Your task to perform on an android device: toggle priority inbox in the gmail app Image 0: 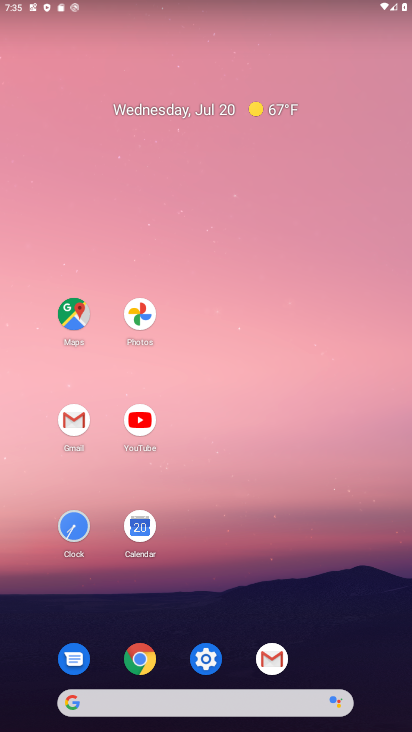
Step 0: click (270, 656)
Your task to perform on an android device: toggle priority inbox in the gmail app Image 1: 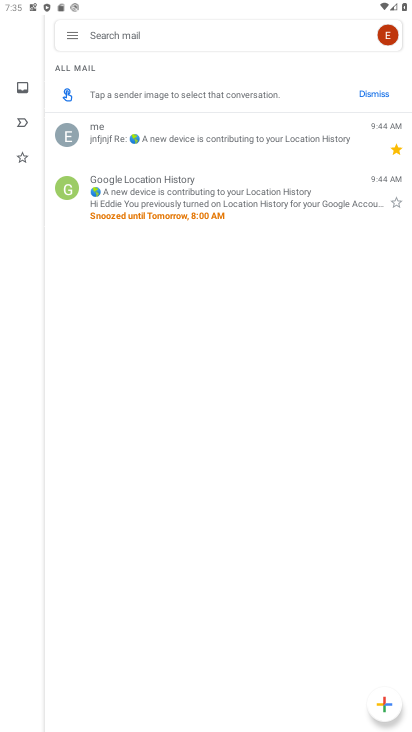
Step 1: click (63, 36)
Your task to perform on an android device: toggle priority inbox in the gmail app Image 2: 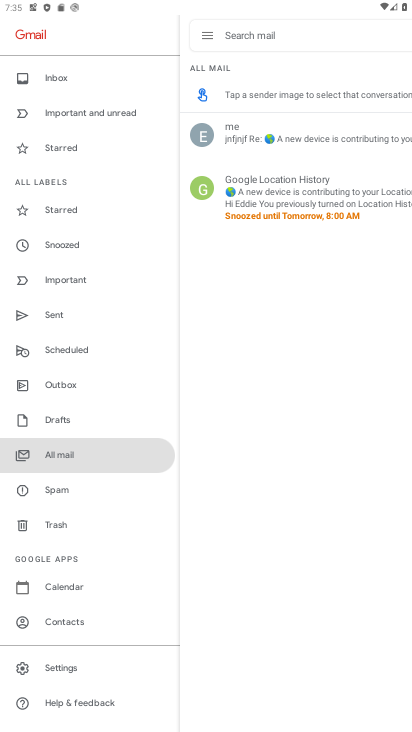
Step 2: click (57, 669)
Your task to perform on an android device: toggle priority inbox in the gmail app Image 3: 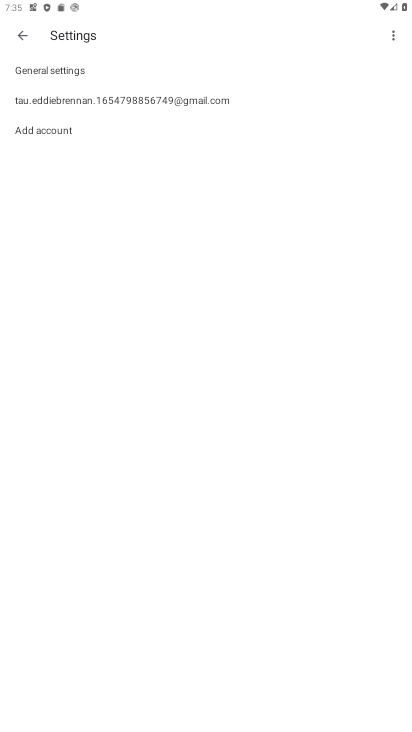
Step 3: click (63, 99)
Your task to perform on an android device: toggle priority inbox in the gmail app Image 4: 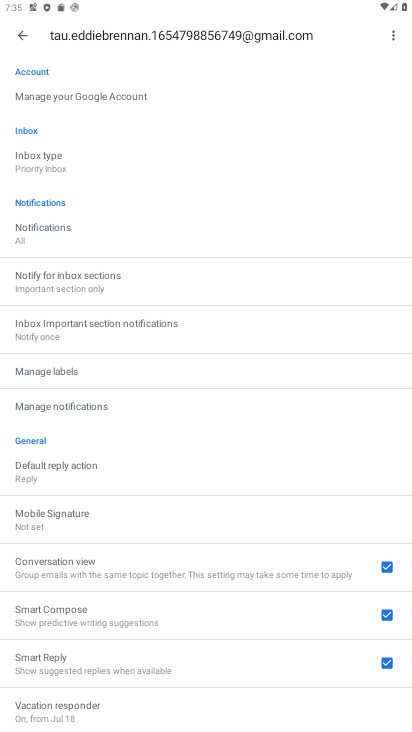
Step 4: click (34, 159)
Your task to perform on an android device: toggle priority inbox in the gmail app Image 5: 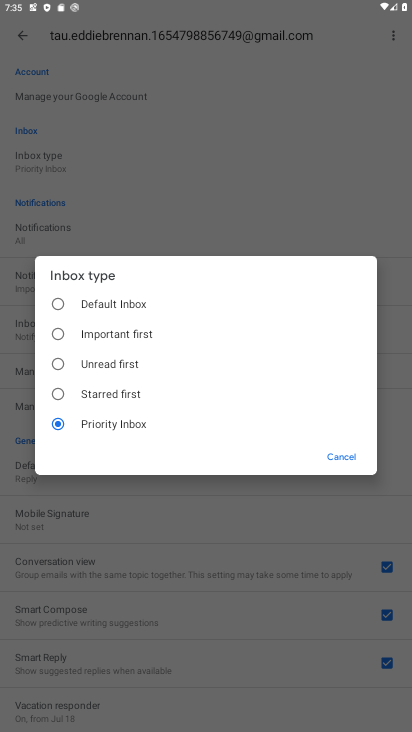
Step 5: click (56, 309)
Your task to perform on an android device: toggle priority inbox in the gmail app Image 6: 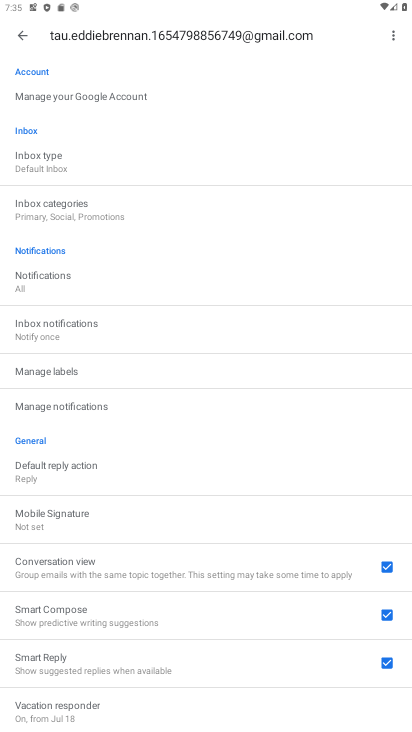
Step 6: task complete